Your task to perform on an android device: turn off wifi Image 0: 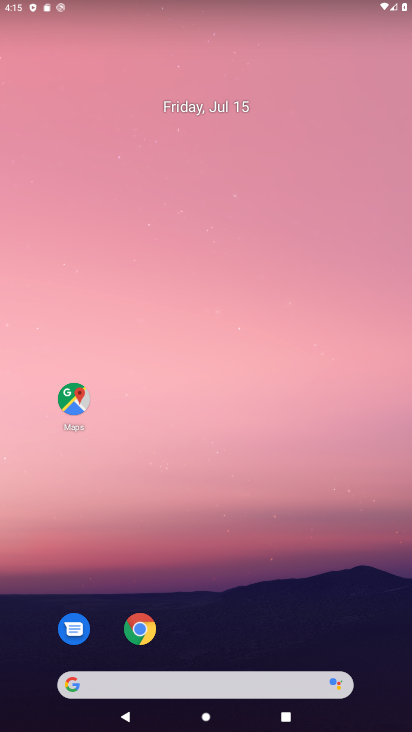
Step 0: drag from (188, 556) to (185, 12)
Your task to perform on an android device: turn off wifi Image 1: 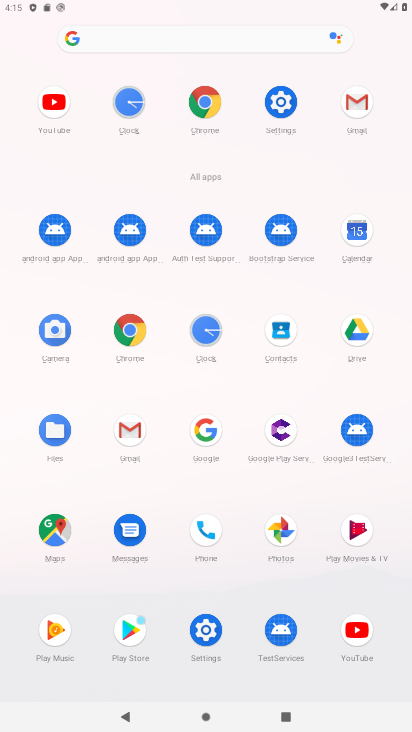
Step 1: click (286, 115)
Your task to perform on an android device: turn off wifi Image 2: 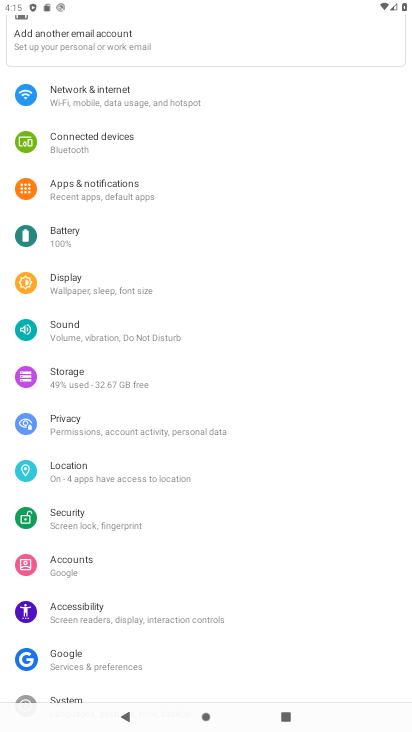
Step 2: click (171, 102)
Your task to perform on an android device: turn off wifi Image 3: 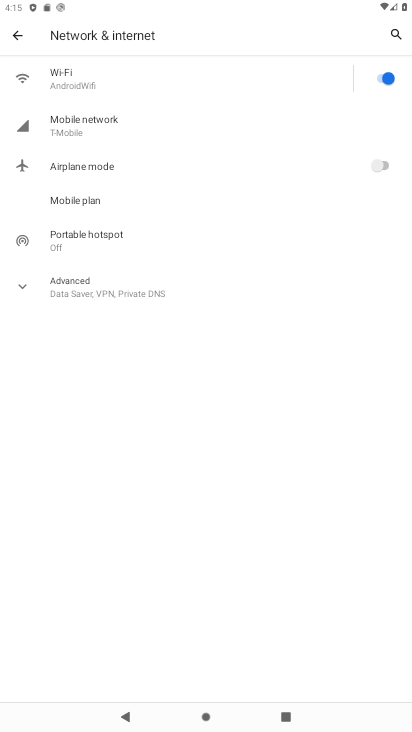
Step 3: click (377, 82)
Your task to perform on an android device: turn off wifi Image 4: 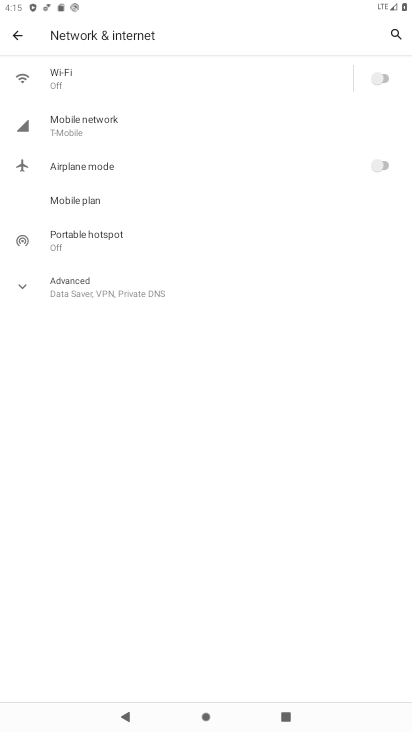
Step 4: task complete